Your task to perform on an android device: Open battery settings Image 0: 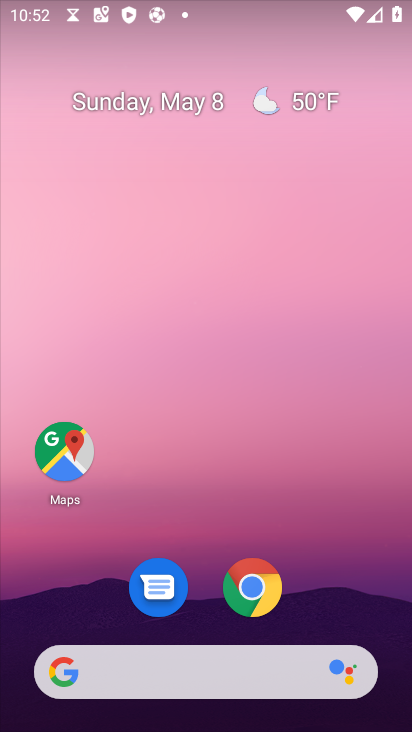
Step 0: drag from (349, 595) to (107, 119)
Your task to perform on an android device: Open battery settings Image 1: 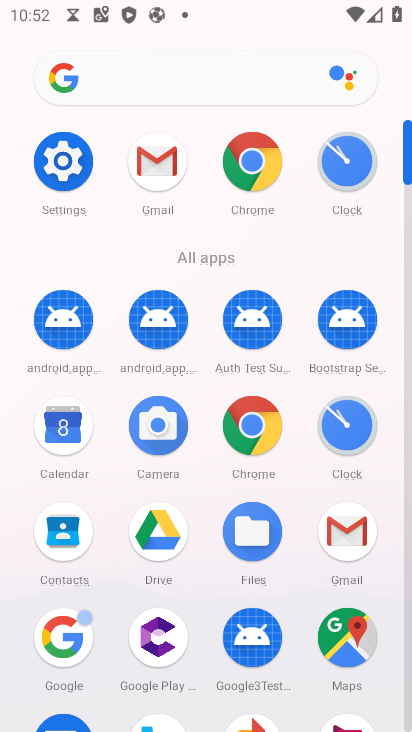
Step 1: click (63, 162)
Your task to perform on an android device: Open battery settings Image 2: 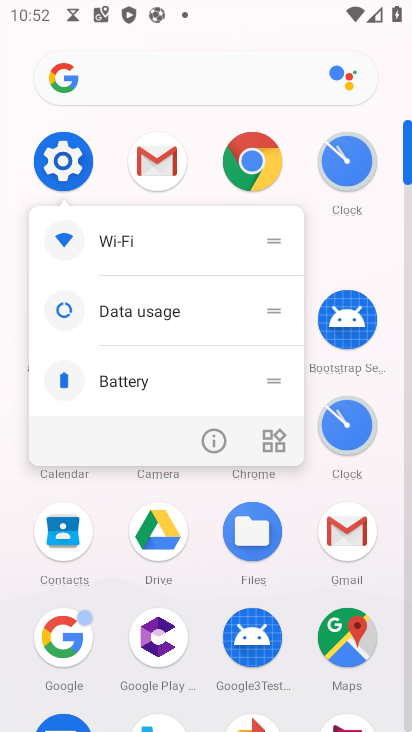
Step 2: click (63, 162)
Your task to perform on an android device: Open battery settings Image 3: 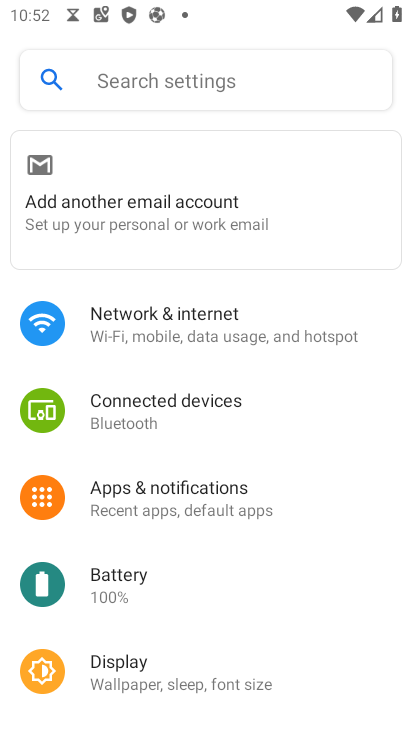
Step 3: click (127, 583)
Your task to perform on an android device: Open battery settings Image 4: 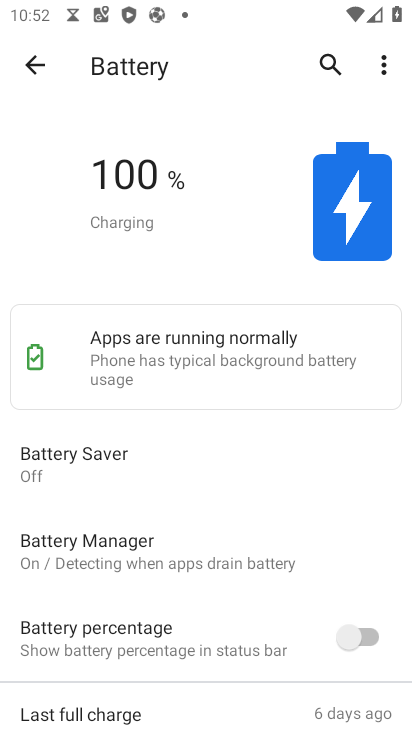
Step 4: task complete